Your task to perform on an android device: turn off sleep mode Image 0: 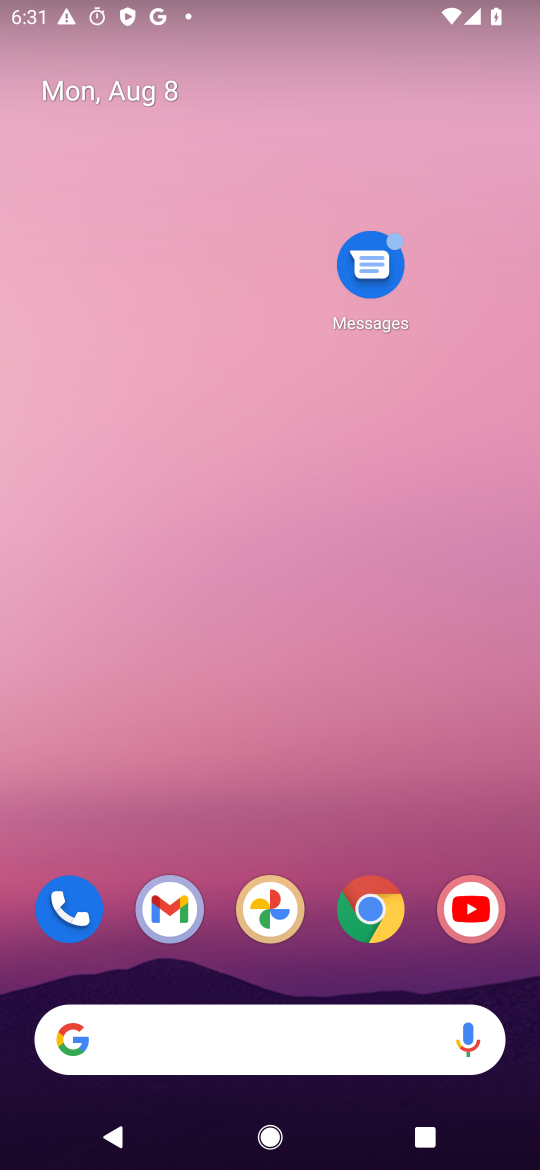
Step 0: drag from (233, 1046) to (393, 119)
Your task to perform on an android device: turn off sleep mode Image 1: 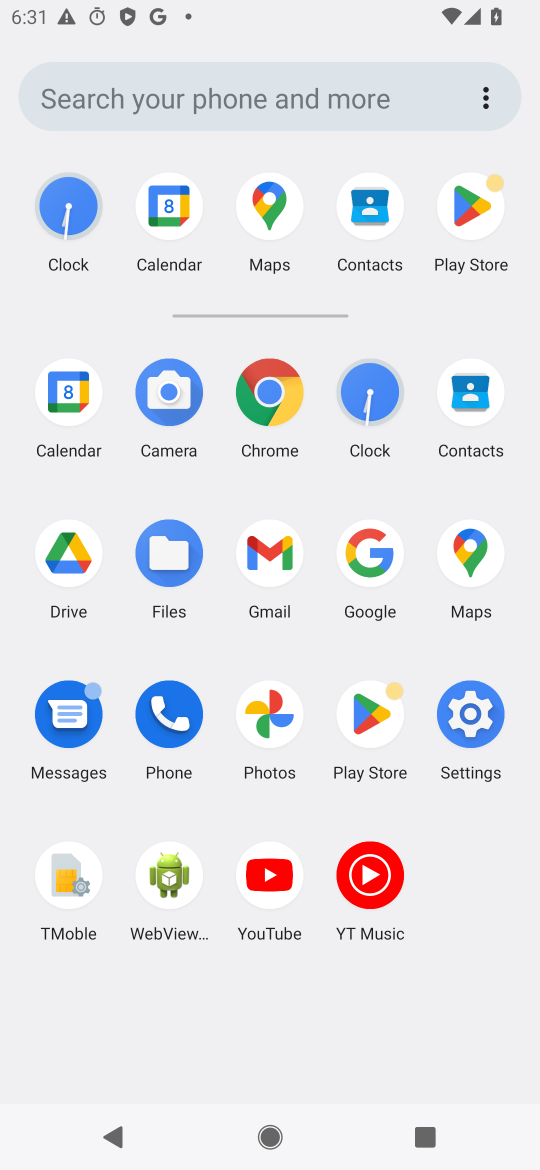
Step 1: click (479, 708)
Your task to perform on an android device: turn off sleep mode Image 2: 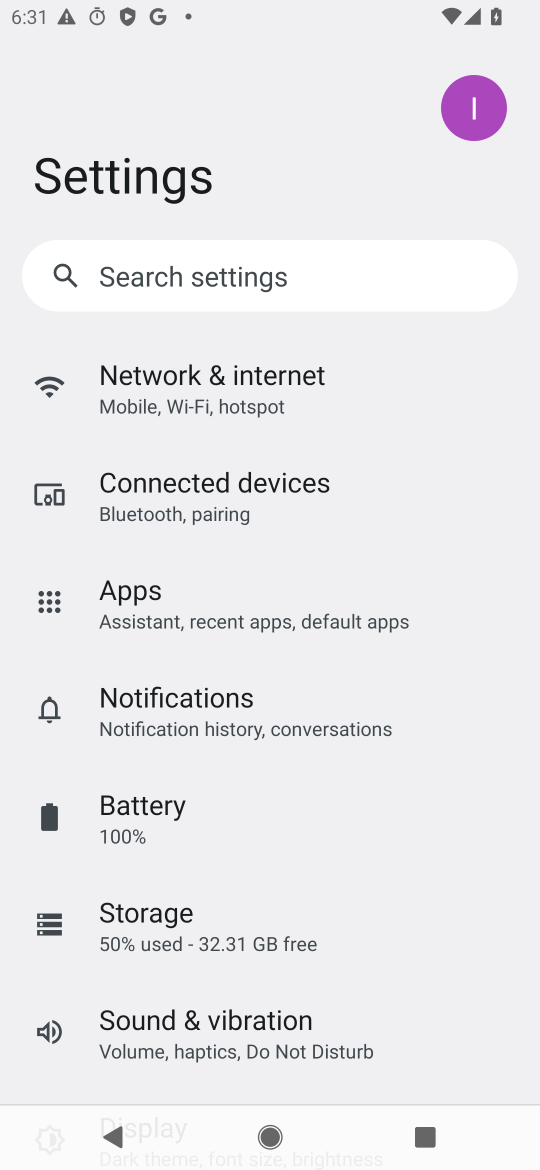
Step 2: drag from (271, 878) to (339, 390)
Your task to perform on an android device: turn off sleep mode Image 3: 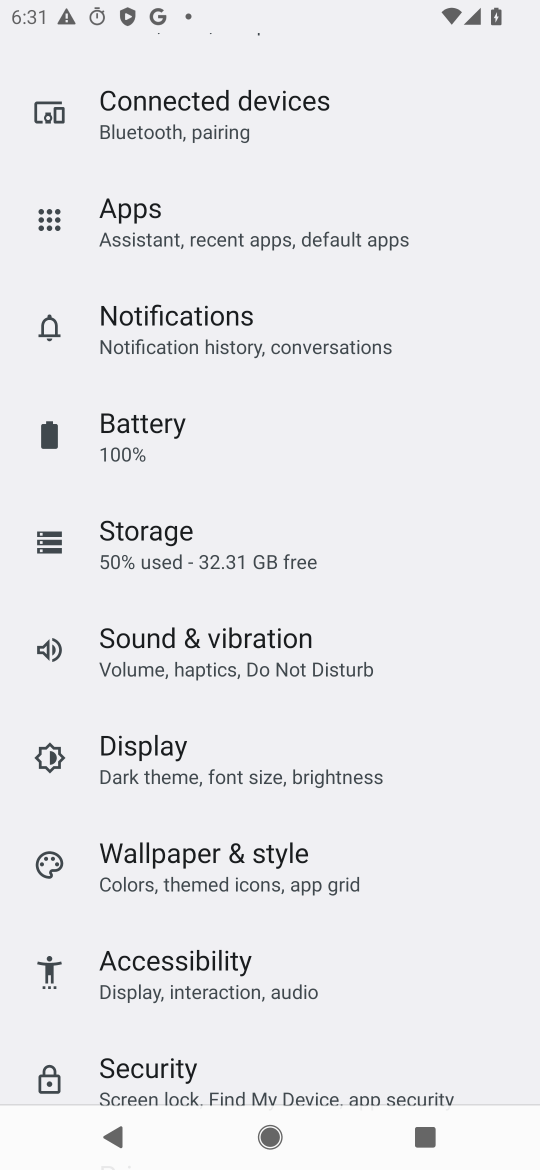
Step 3: click (216, 760)
Your task to perform on an android device: turn off sleep mode Image 4: 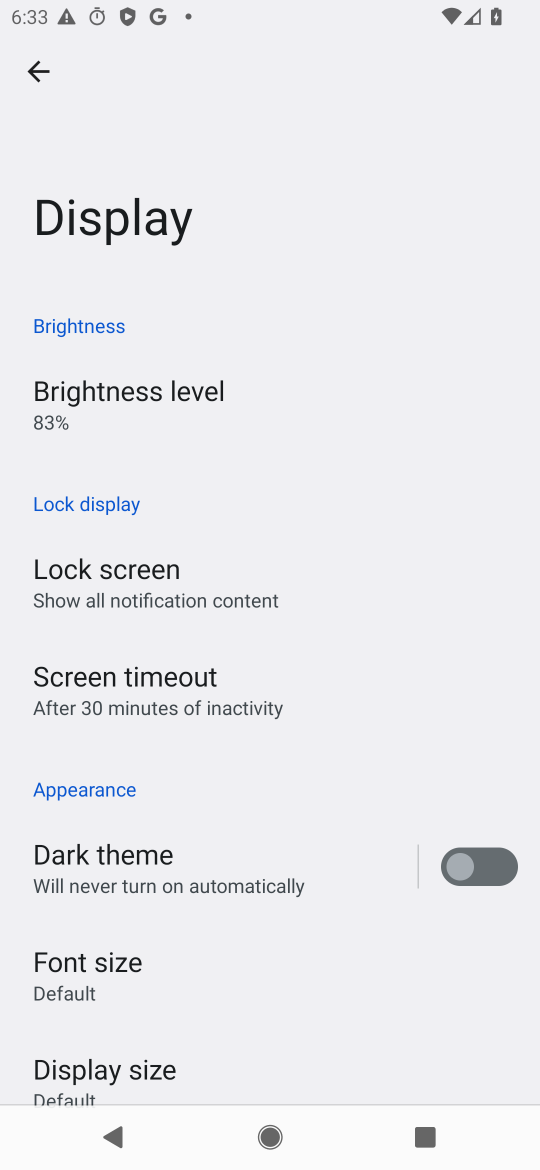
Step 4: task complete